Your task to perform on an android device: Toggle the flashlight Image 0: 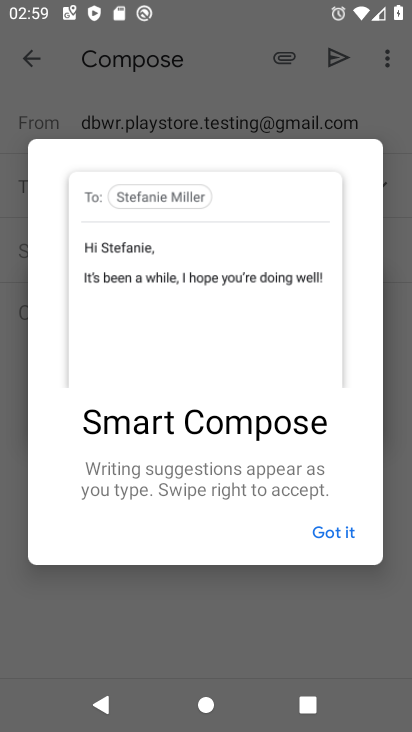
Step 0: press home button
Your task to perform on an android device: Toggle the flashlight Image 1: 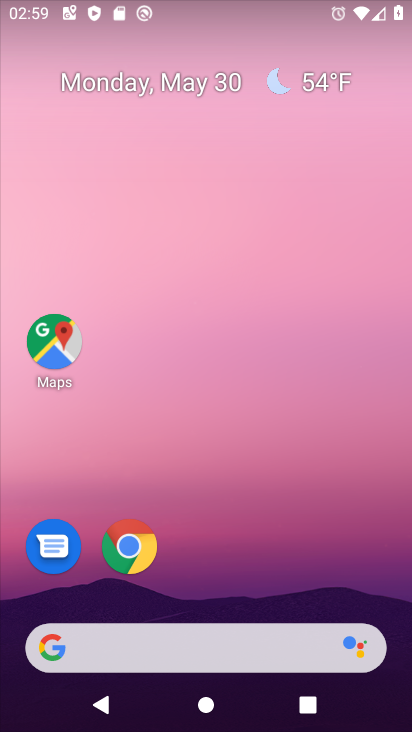
Step 1: drag from (210, 576) to (239, 0)
Your task to perform on an android device: Toggle the flashlight Image 2: 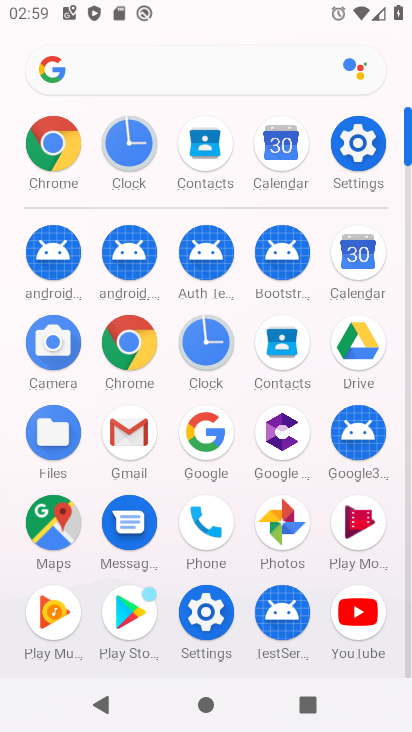
Step 2: click (356, 135)
Your task to perform on an android device: Toggle the flashlight Image 3: 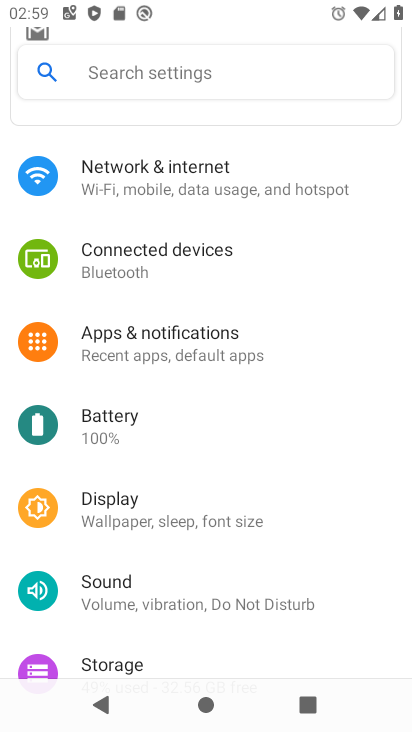
Step 3: click (150, 66)
Your task to perform on an android device: Toggle the flashlight Image 4: 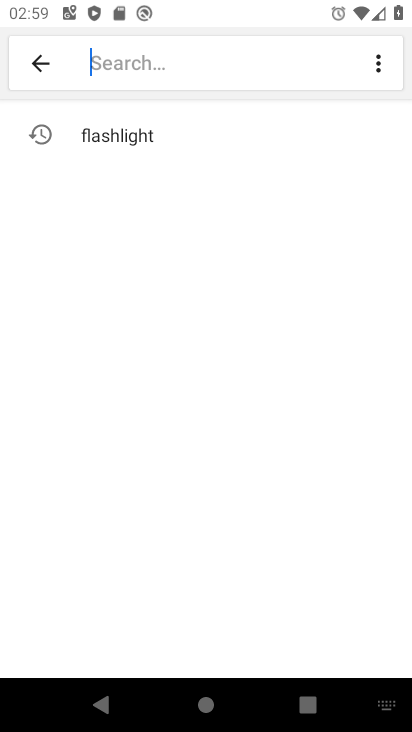
Step 4: type "flashl"
Your task to perform on an android device: Toggle the flashlight Image 5: 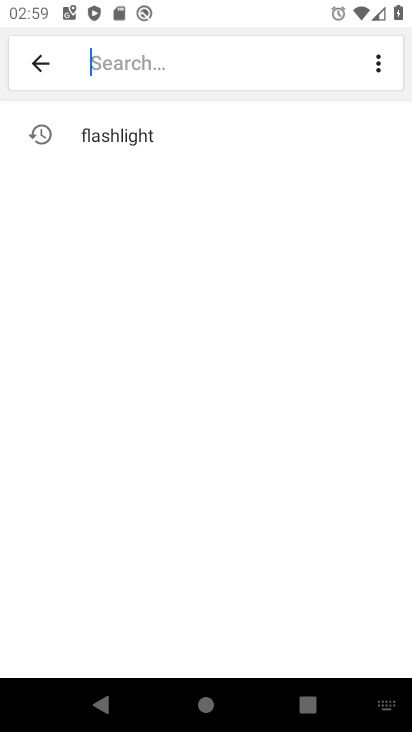
Step 5: click (137, 137)
Your task to perform on an android device: Toggle the flashlight Image 6: 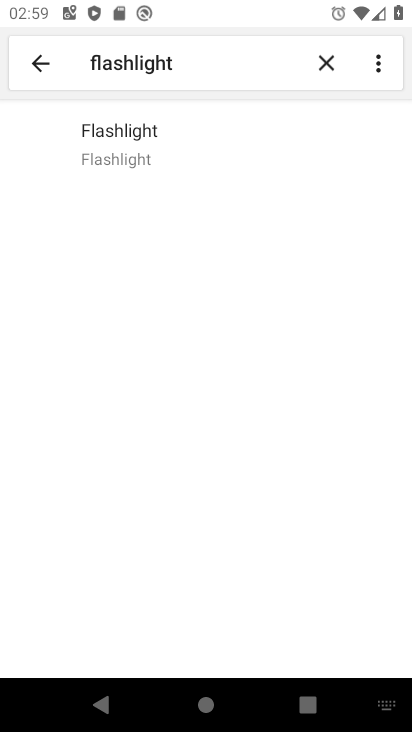
Step 6: click (173, 146)
Your task to perform on an android device: Toggle the flashlight Image 7: 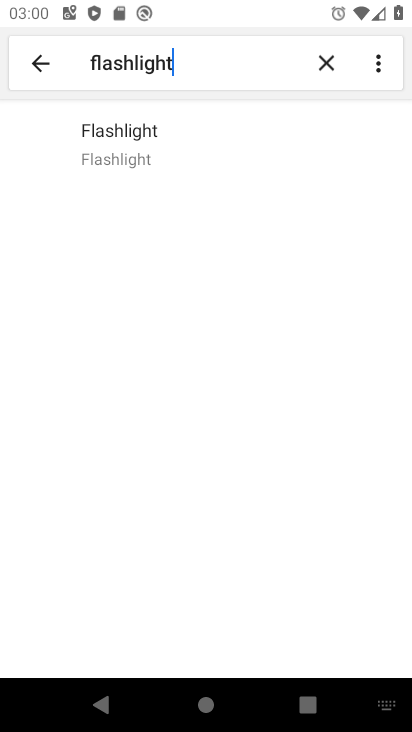
Step 7: click (167, 130)
Your task to perform on an android device: Toggle the flashlight Image 8: 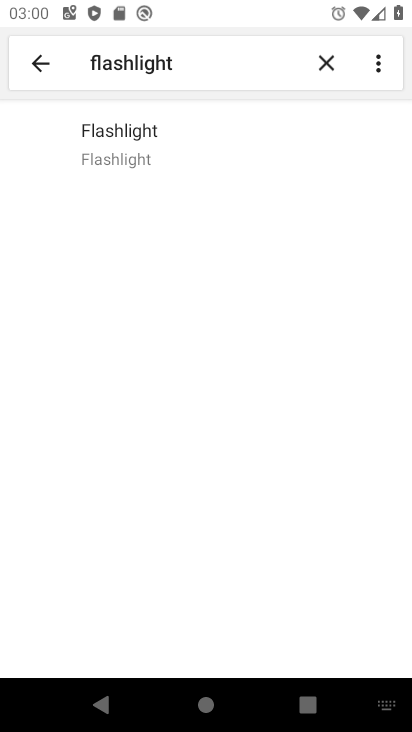
Step 8: task complete